Your task to perform on an android device: turn on location history Image 0: 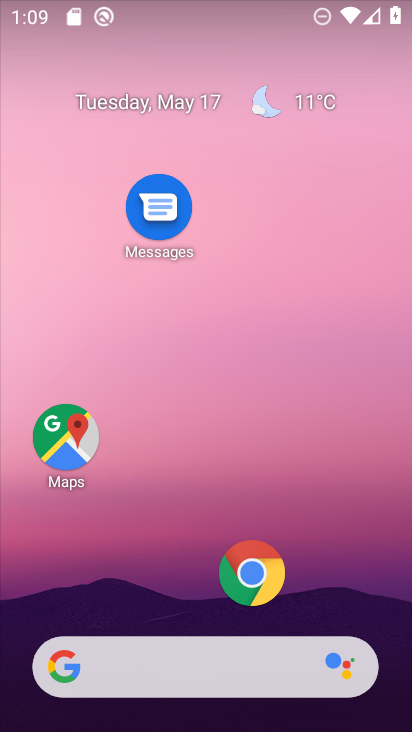
Step 0: drag from (210, 607) to (251, 79)
Your task to perform on an android device: turn on location history Image 1: 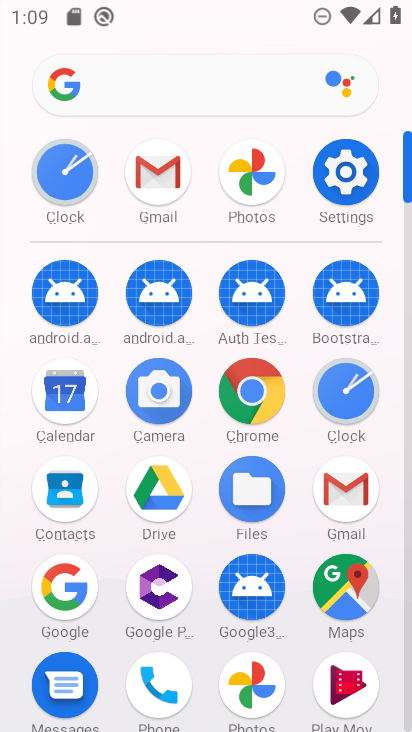
Step 1: click (342, 163)
Your task to perform on an android device: turn on location history Image 2: 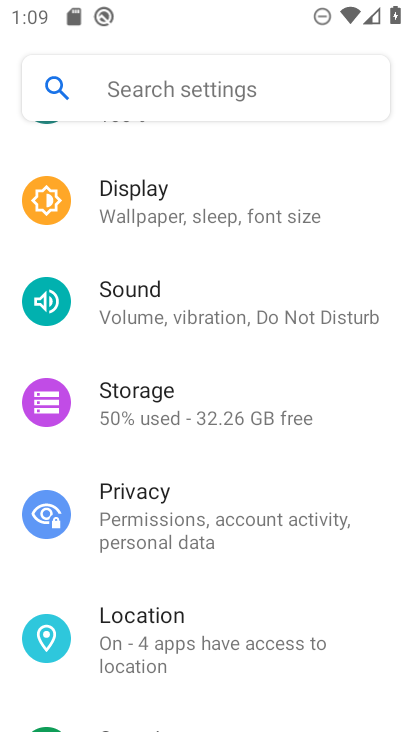
Step 2: click (199, 617)
Your task to perform on an android device: turn on location history Image 3: 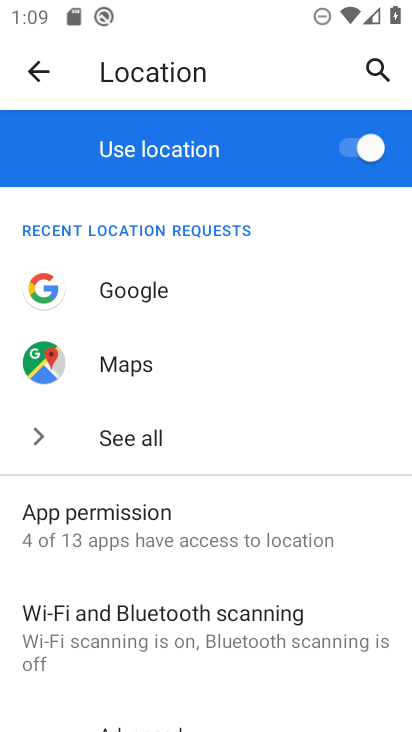
Step 3: drag from (165, 659) to (195, 212)
Your task to perform on an android device: turn on location history Image 4: 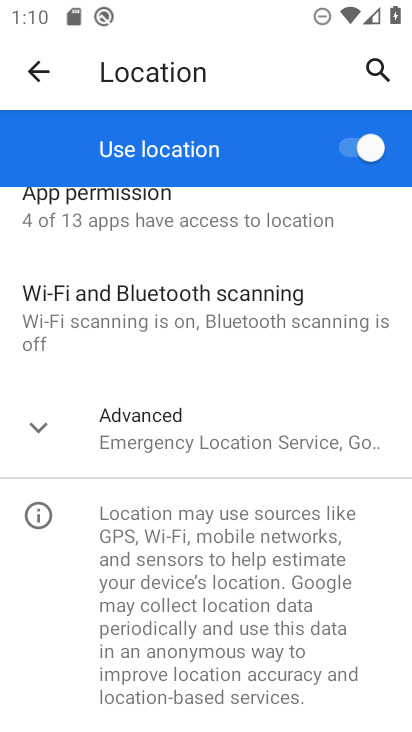
Step 4: click (38, 418)
Your task to perform on an android device: turn on location history Image 5: 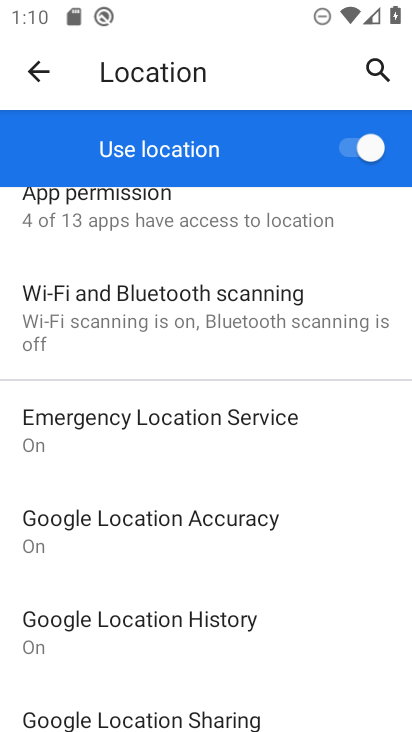
Step 5: click (265, 621)
Your task to perform on an android device: turn on location history Image 6: 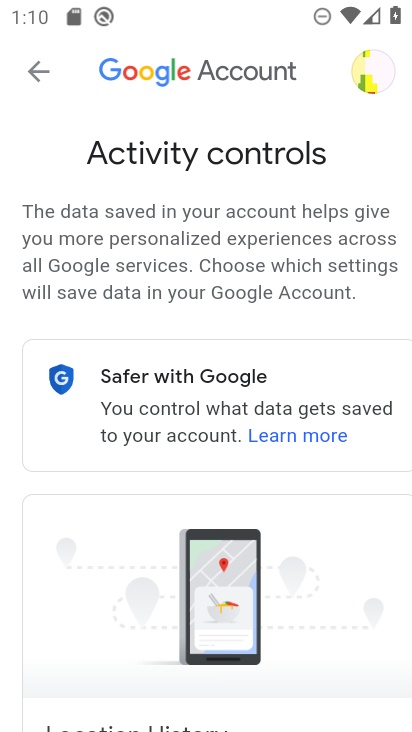
Step 6: task complete